Your task to perform on an android device: Open Google Chrome Image 0: 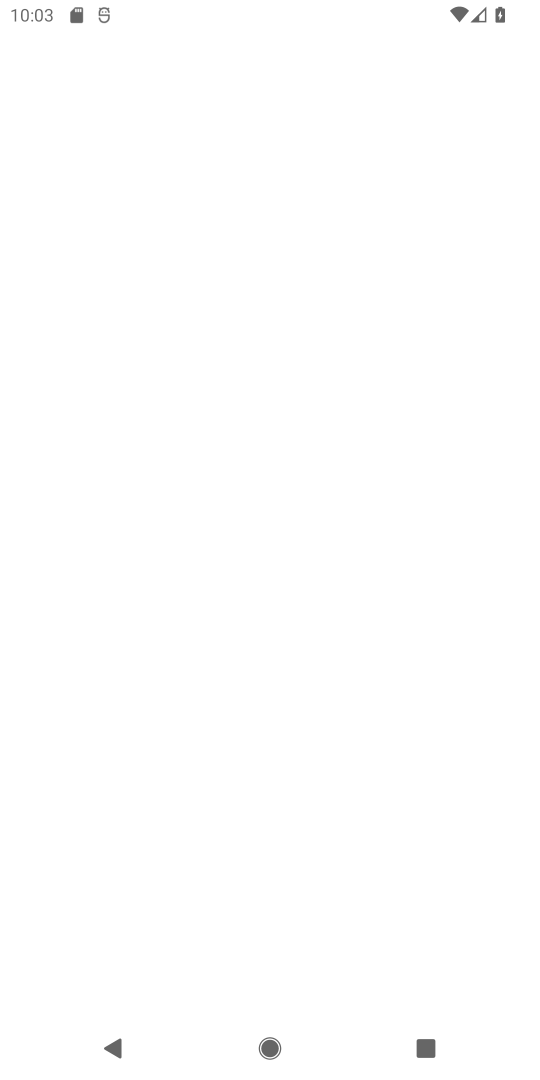
Step 0: click (269, 1046)
Your task to perform on an android device: Open Google Chrome Image 1: 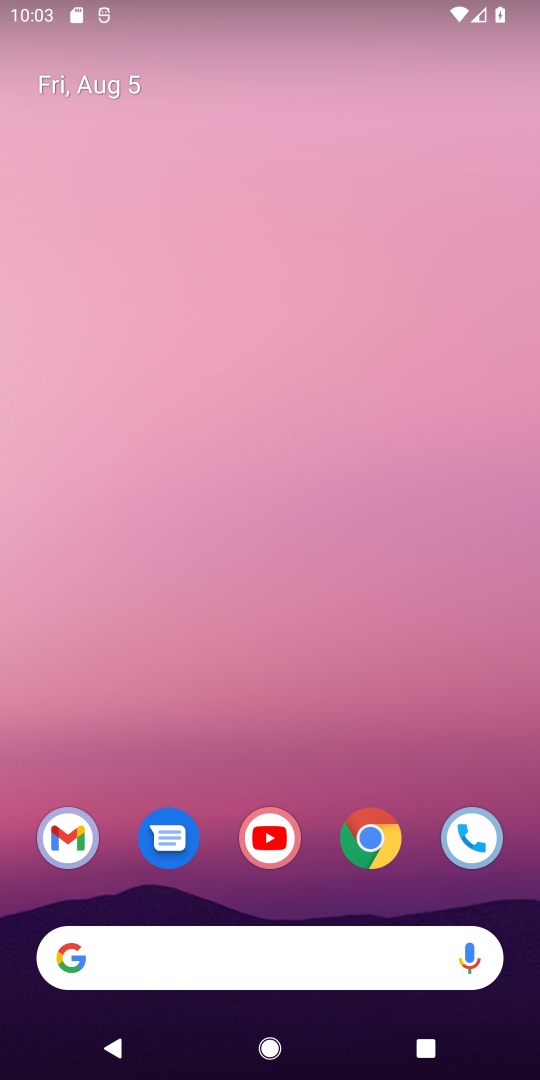
Step 1: click (388, 853)
Your task to perform on an android device: Open Google Chrome Image 2: 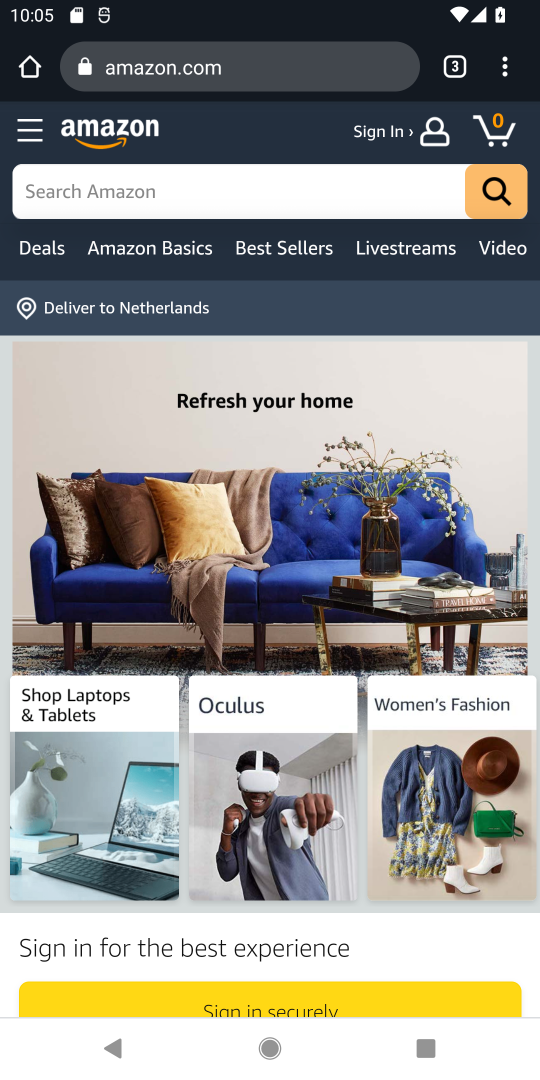
Step 2: task complete